Your task to perform on an android device: turn on priority inbox in the gmail app Image 0: 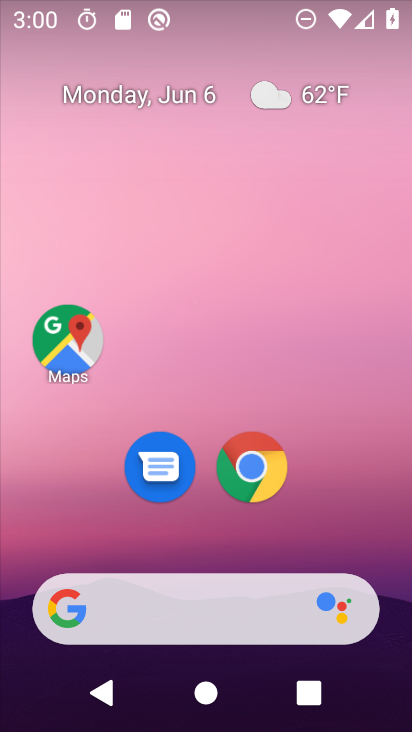
Step 0: drag from (229, 548) to (197, 174)
Your task to perform on an android device: turn on priority inbox in the gmail app Image 1: 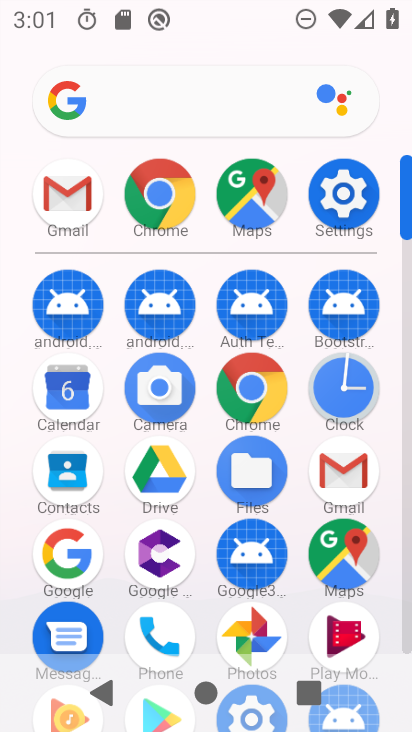
Step 1: click (326, 472)
Your task to perform on an android device: turn on priority inbox in the gmail app Image 2: 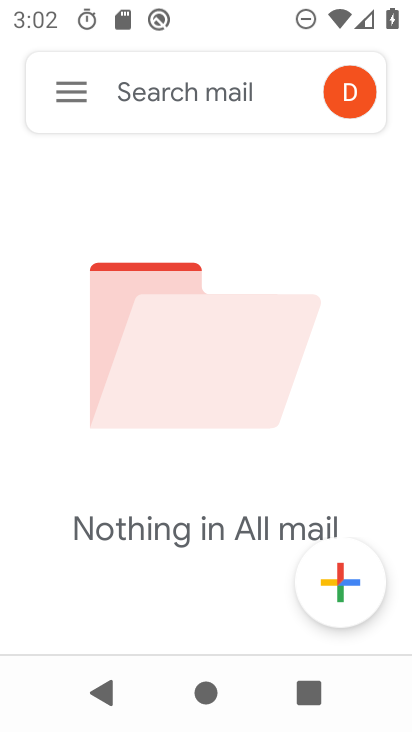
Step 2: click (63, 94)
Your task to perform on an android device: turn on priority inbox in the gmail app Image 3: 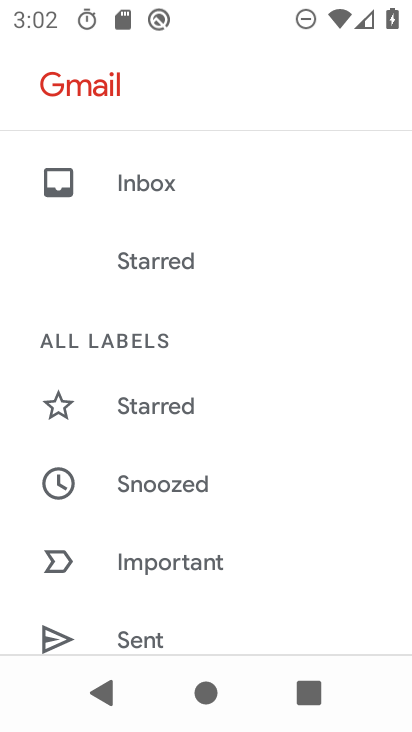
Step 3: drag from (158, 579) to (161, 220)
Your task to perform on an android device: turn on priority inbox in the gmail app Image 4: 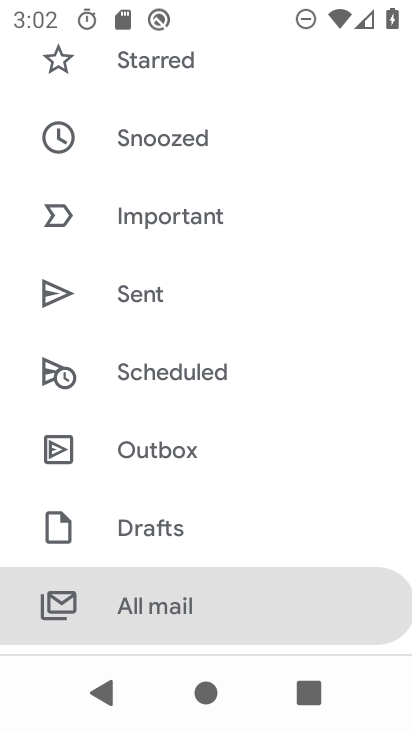
Step 4: drag from (154, 588) to (188, 220)
Your task to perform on an android device: turn on priority inbox in the gmail app Image 5: 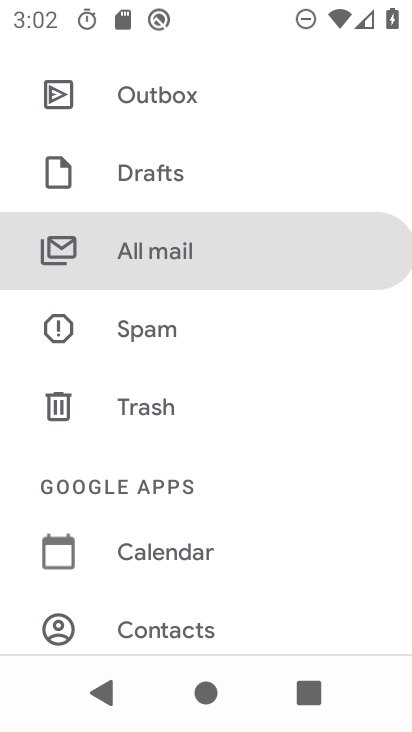
Step 5: drag from (154, 565) to (155, 269)
Your task to perform on an android device: turn on priority inbox in the gmail app Image 6: 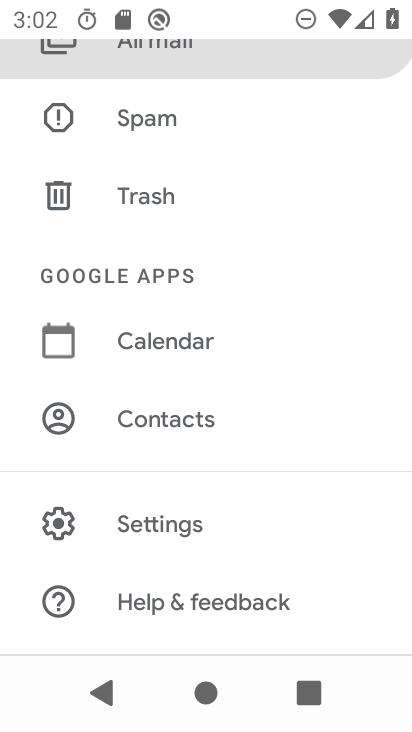
Step 6: click (140, 526)
Your task to perform on an android device: turn on priority inbox in the gmail app Image 7: 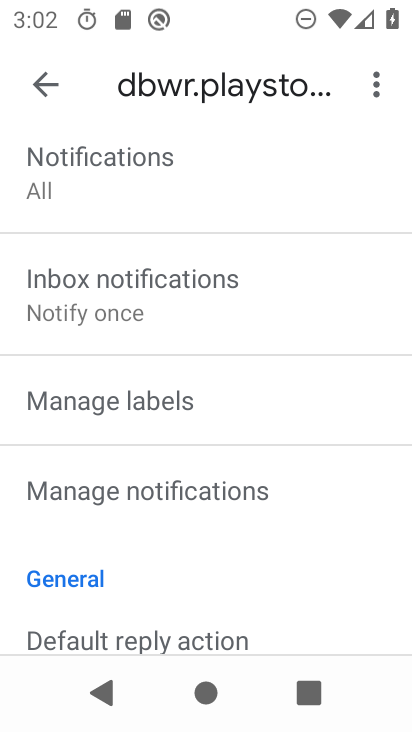
Step 7: drag from (152, 637) to (152, 435)
Your task to perform on an android device: turn on priority inbox in the gmail app Image 8: 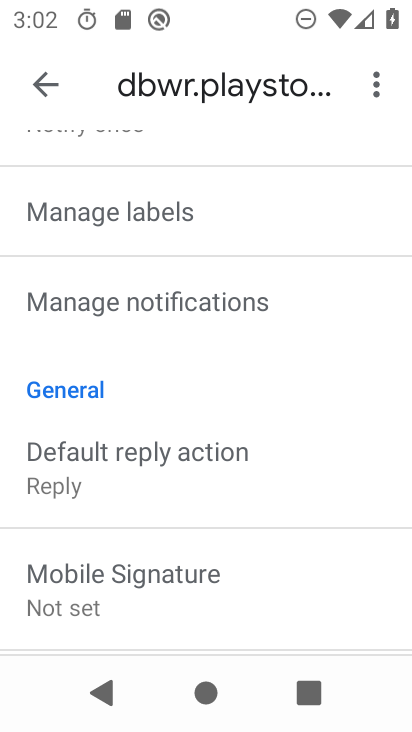
Step 8: drag from (105, 260) to (112, 519)
Your task to perform on an android device: turn on priority inbox in the gmail app Image 9: 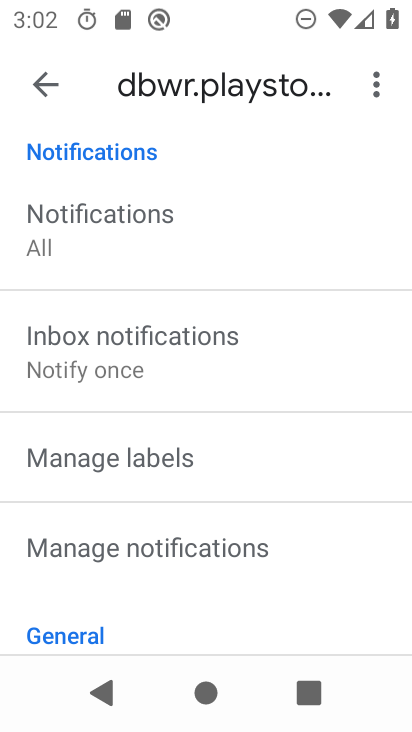
Step 9: drag from (135, 359) to (135, 482)
Your task to perform on an android device: turn on priority inbox in the gmail app Image 10: 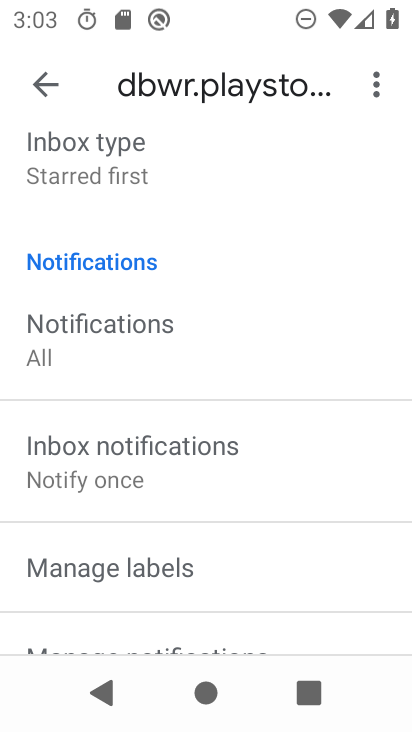
Step 10: drag from (117, 236) to (138, 498)
Your task to perform on an android device: turn on priority inbox in the gmail app Image 11: 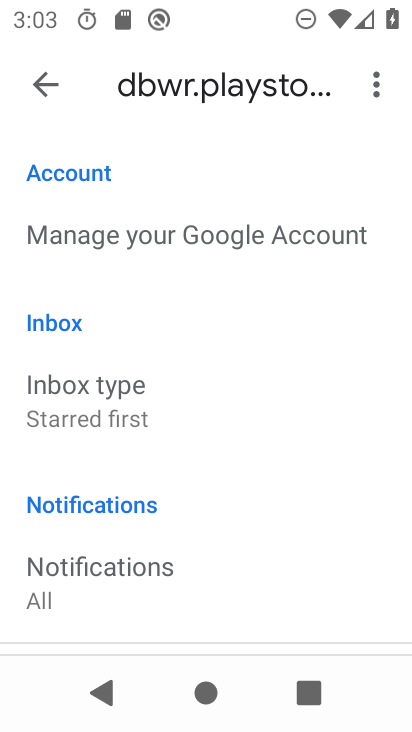
Step 11: drag from (119, 343) to (130, 518)
Your task to perform on an android device: turn on priority inbox in the gmail app Image 12: 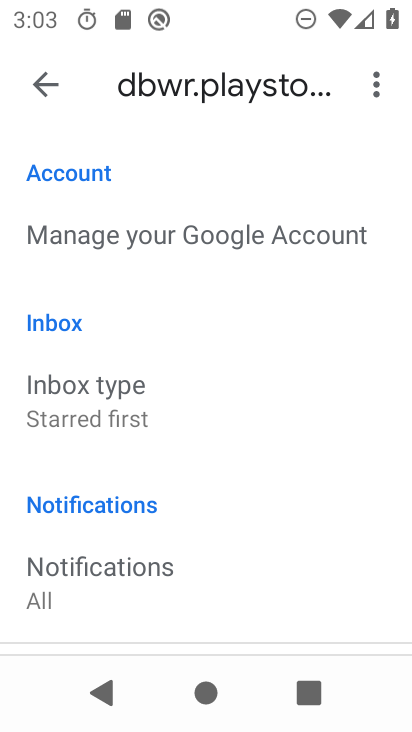
Step 12: click (78, 416)
Your task to perform on an android device: turn on priority inbox in the gmail app Image 13: 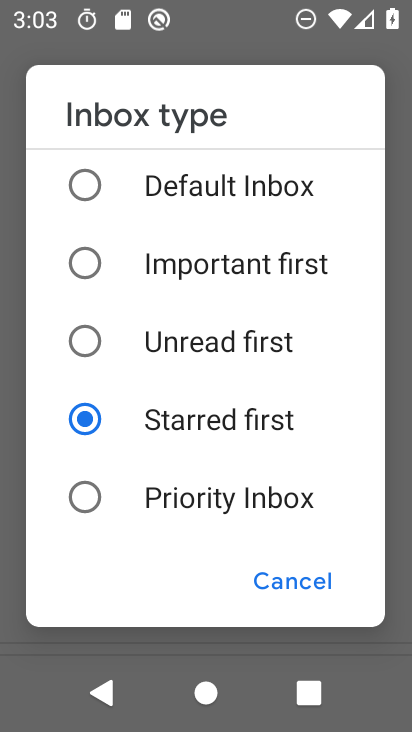
Step 13: click (82, 507)
Your task to perform on an android device: turn on priority inbox in the gmail app Image 14: 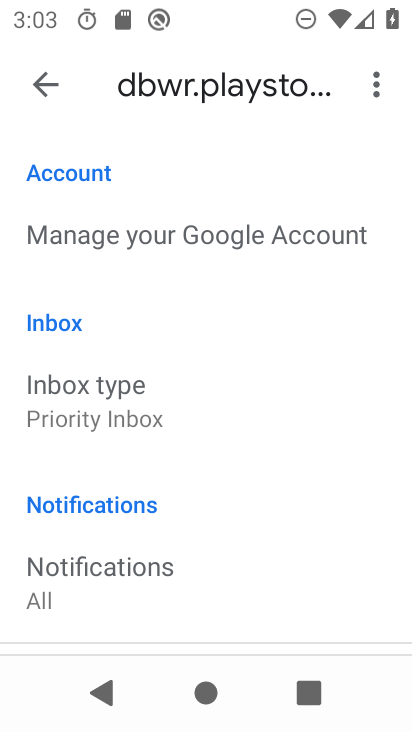
Step 14: task complete